Your task to perform on an android device: refresh tabs in the chrome app Image 0: 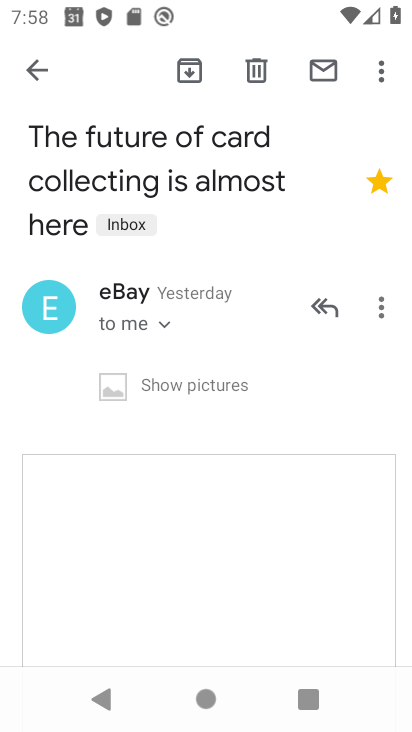
Step 0: press home button
Your task to perform on an android device: refresh tabs in the chrome app Image 1: 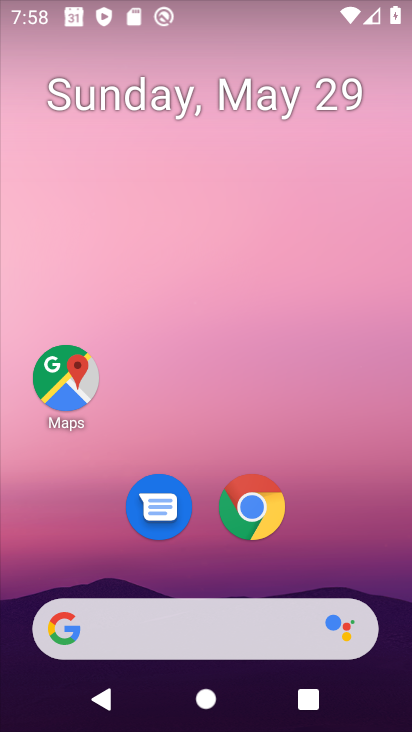
Step 1: click (253, 517)
Your task to perform on an android device: refresh tabs in the chrome app Image 2: 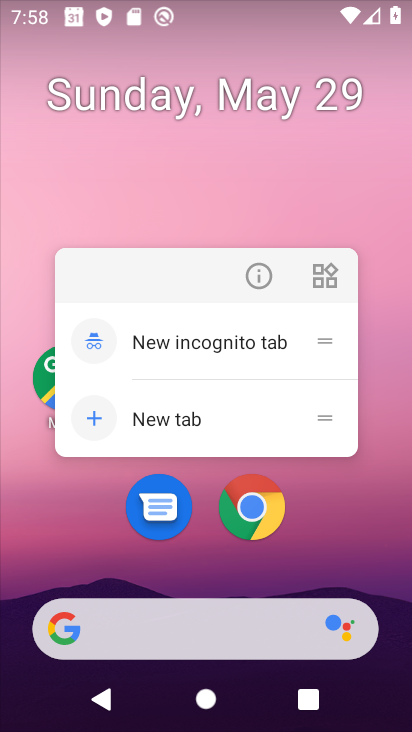
Step 2: click (253, 517)
Your task to perform on an android device: refresh tabs in the chrome app Image 3: 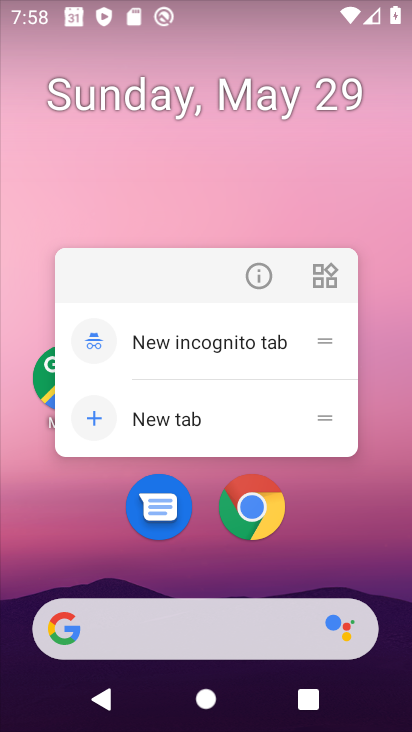
Step 3: click (259, 508)
Your task to perform on an android device: refresh tabs in the chrome app Image 4: 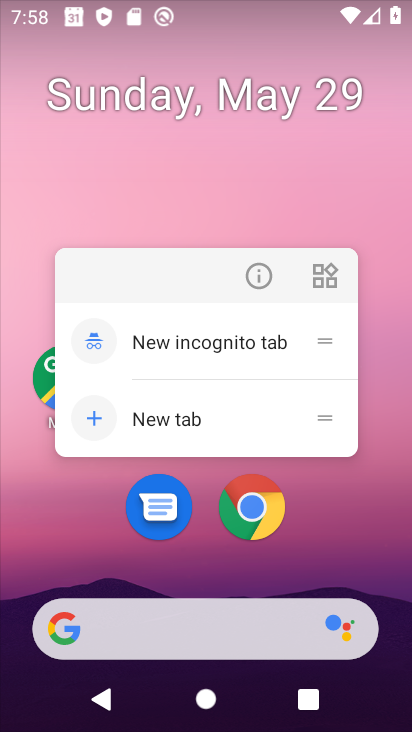
Step 4: click (337, 553)
Your task to perform on an android device: refresh tabs in the chrome app Image 5: 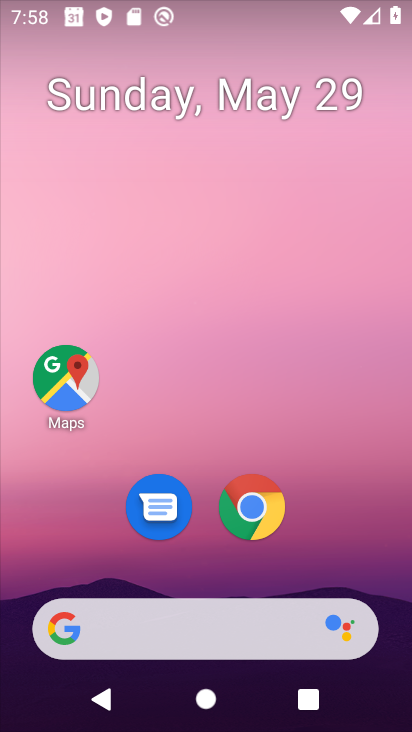
Step 5: drag from (343, 552) to (295, 35)
Your task to perform on an android device: refresh tabs in the chrome app Image 6: 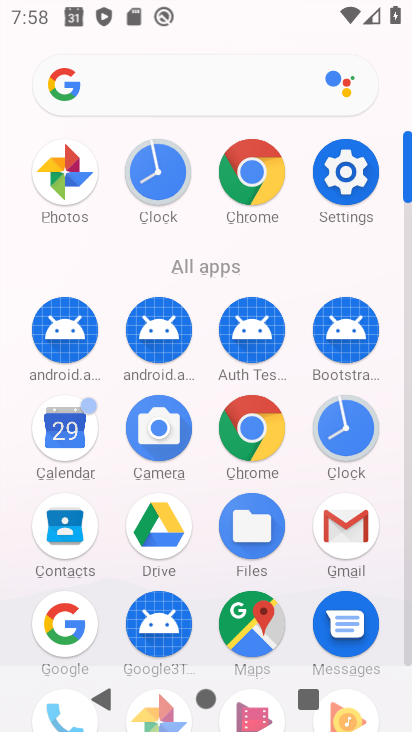
Step 6: click (253, 435)
Your task to perform on an android device: refresh tabs in the chrome app Image 7: 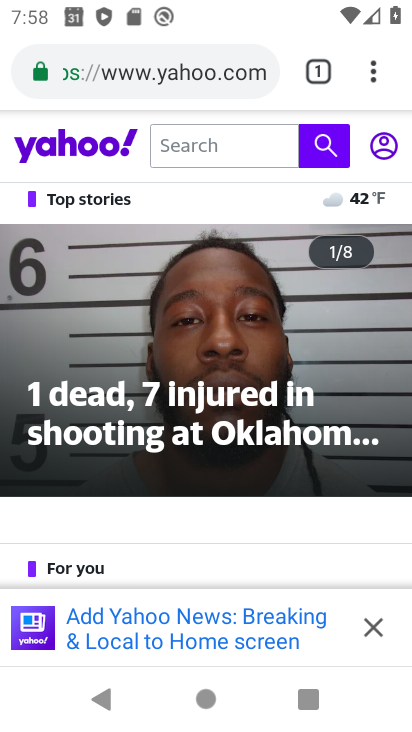
Step 7: click (375, 68)
Your task to perform on an android device: refresh tabs in the chrome app Image 8: 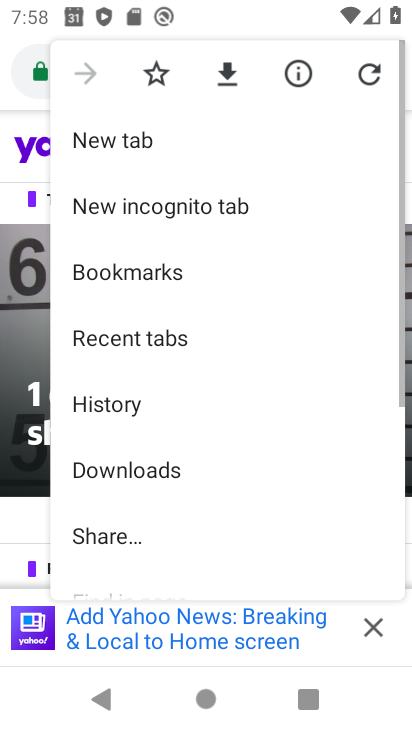
Step 8: click (375, 68)
Your task to perform on an android device: refresh tabs in the chrome app Image 9: 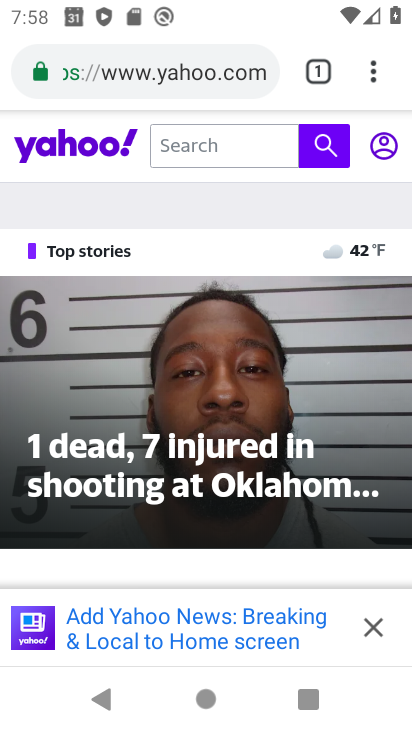
Step 9: task complete